Your task to perform on an android device: Open Maps and search for coffee Image 0: 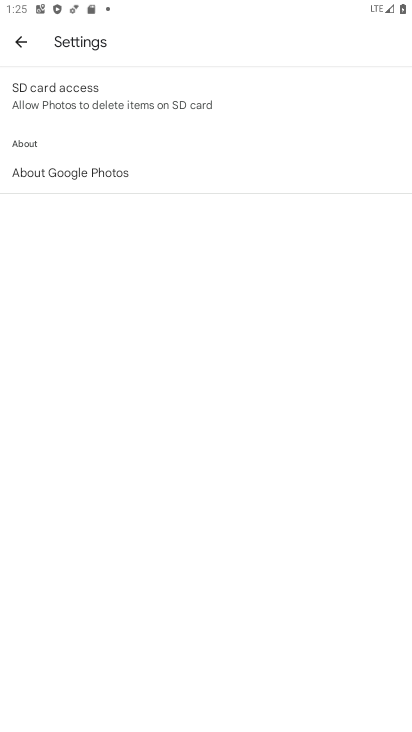
Step 0: press home button
Your task to perform on an android device: Open Maps and search for coffee Image 1: 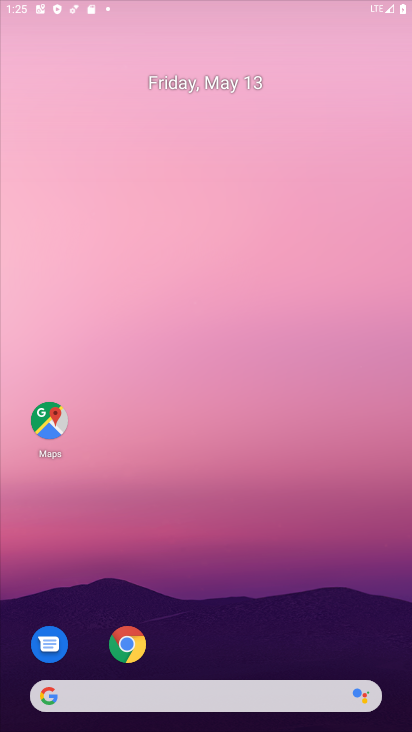
Step 1: drag from (351, 628) to (285, 149)
Your task to perform on an android device: Open Maps and search for coffee Image 2: 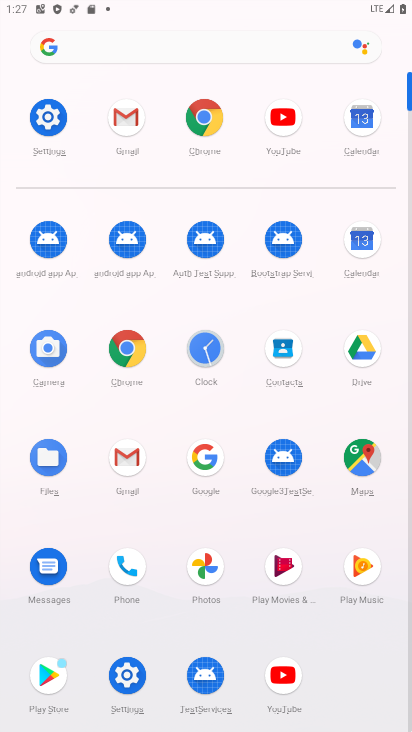
Step 2: click (361, 464)
Your task to perform on an android device: Open Maps and search for coffee Image 3: 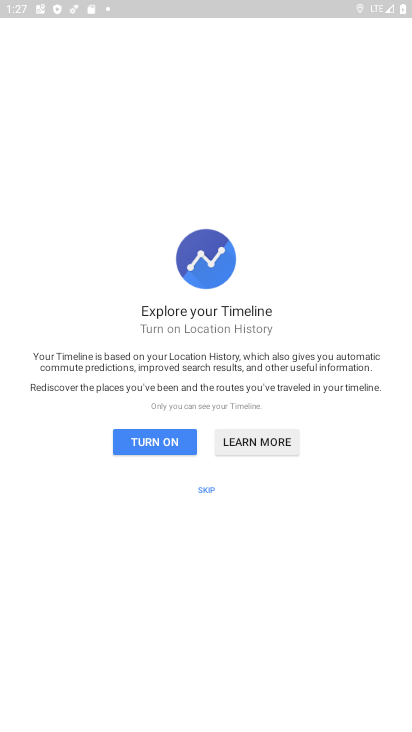
Step 3: press back button
Your task to perform on an android device: Open Maps and search for coffee Image 4: 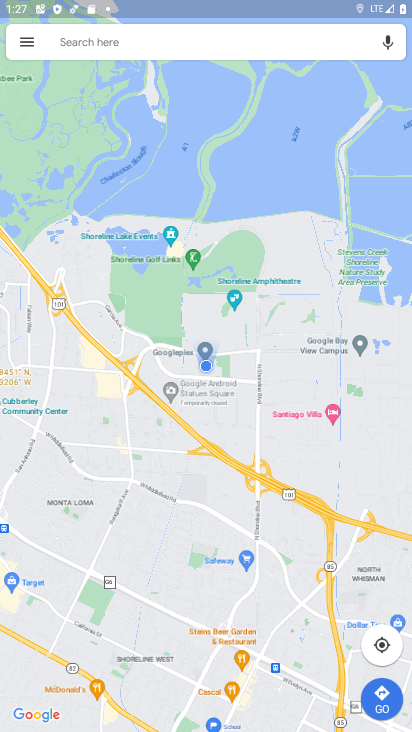
Step 4: click (159, 46)
Your task to perform on an android device: Open Maps and search for coffee Image 5: 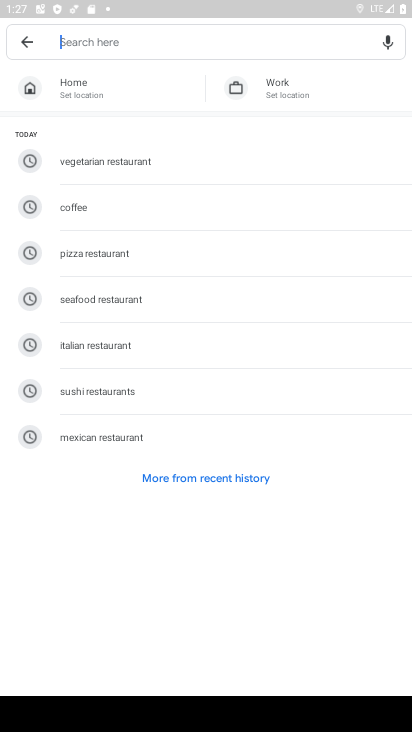
Step 5: click (109, 195)
Your task to perform on an android device: Open Maps and search for coffee Image 6: 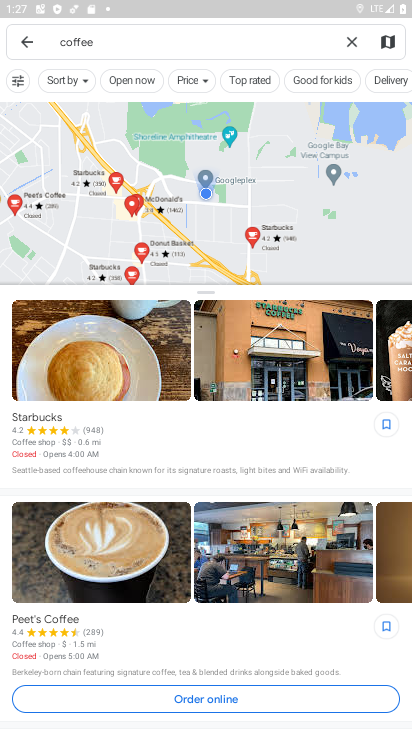
Step 6: task complete